Your task to perform on an android device: toggle sleep mode Image 0: 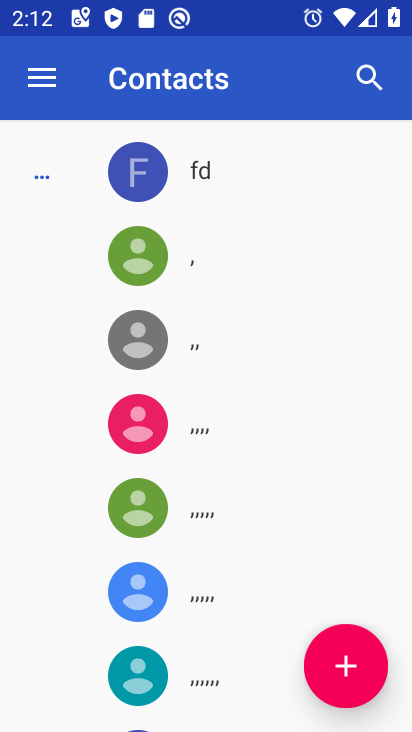
Step 0: press home button
Your task to perform on an android device: toggle sleep mode Image 1: 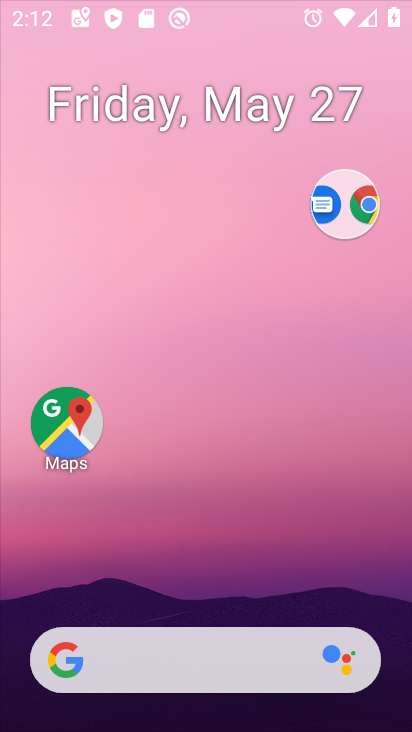
Step 1: drag from (174, 588) to (180, 259)
Your task to perform on an android device: toggle sleep mode Image 2: 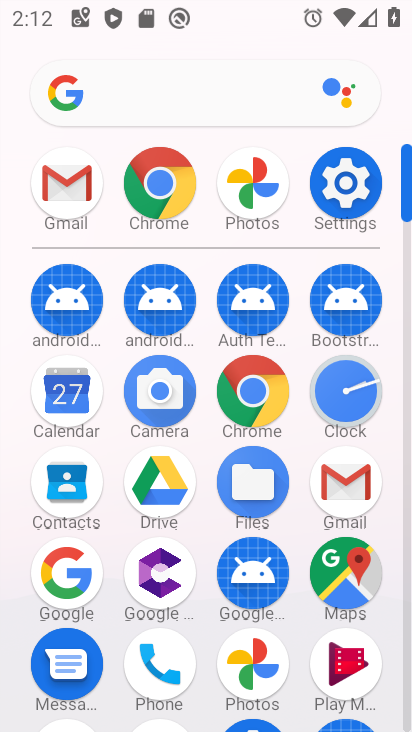
Step 2: click (352, 202)
Your task to perform on an android device: toggle sleep mode Image 3: 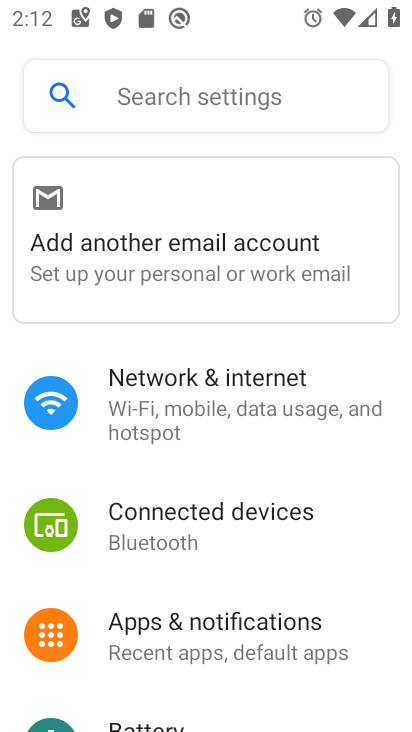
Step 3: drag from (235, 511) to (213, 370)
Your task to perform on an android device: toggle sleep mode Image 4: 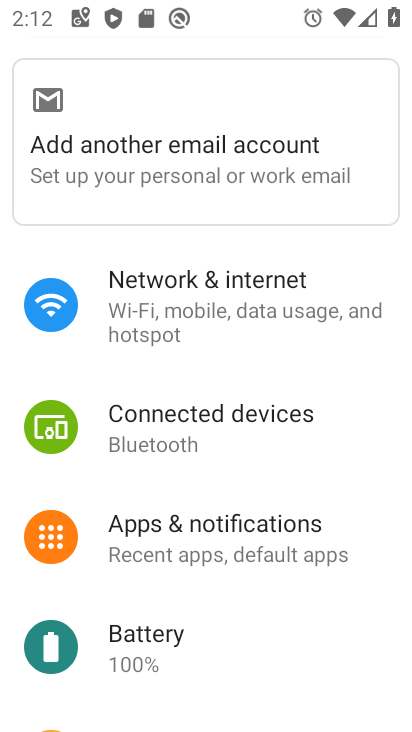
Step 4: click (213, 360)
Your task to perform on an android device: toggle sleep mode Image 5: 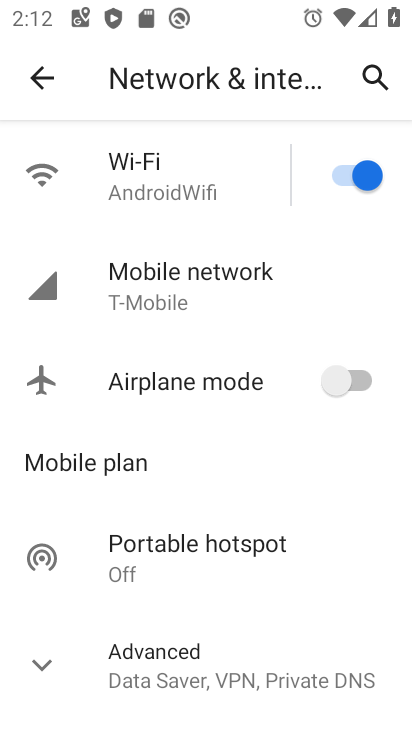
Step 5: click (47, 68)
Your task to perform on an android device: toggle sleep mode Image 6: 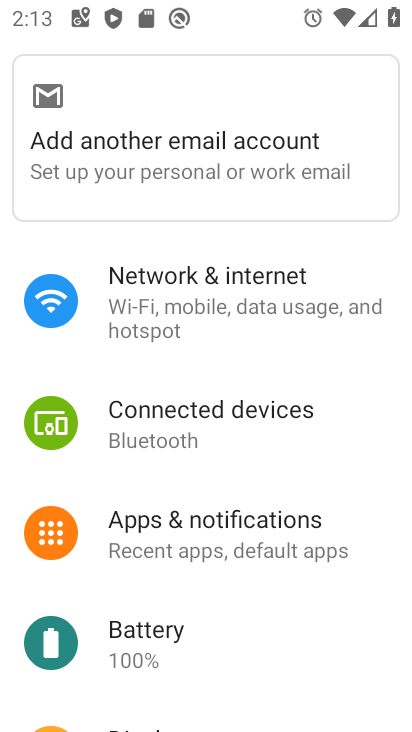
Step 6: drag from (163, 486) to (165, 132)
Your task to perform on an android device: toggle sleep mode Image 7: 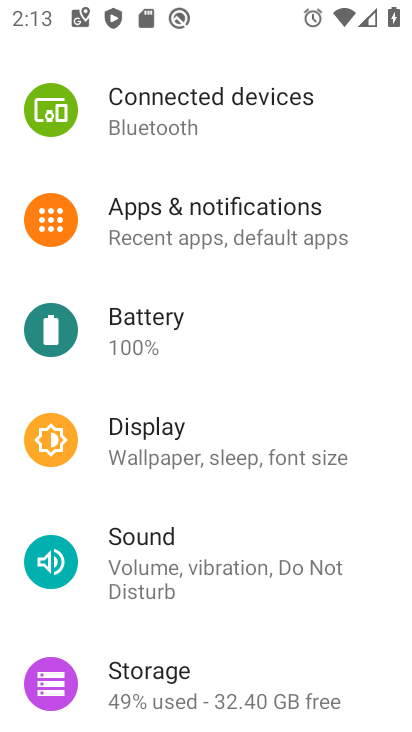
Step 7: click (192, 434)
Your task to perform on an android device: toggle sleep mode Image 8: 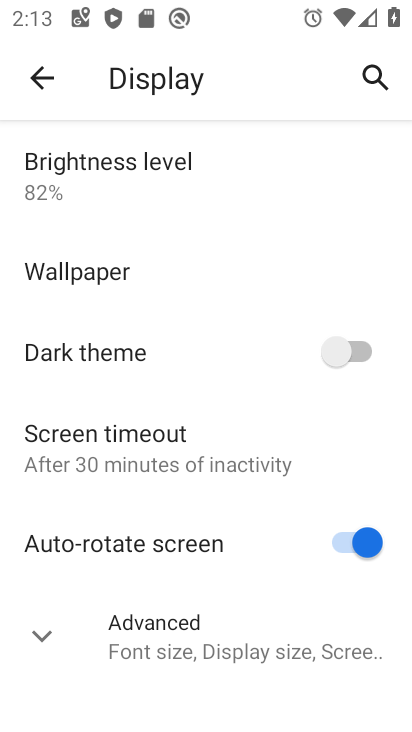
Step 8: task complete